Your task to perform on an android device: toggle pop-ups in chrome Image 0: 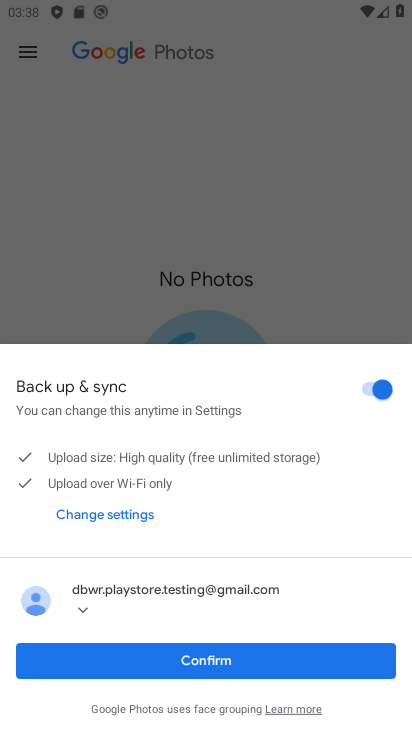
Step 0: press home button
Your task to perform on an android device: toggle pop-ups in chrome Image 1: 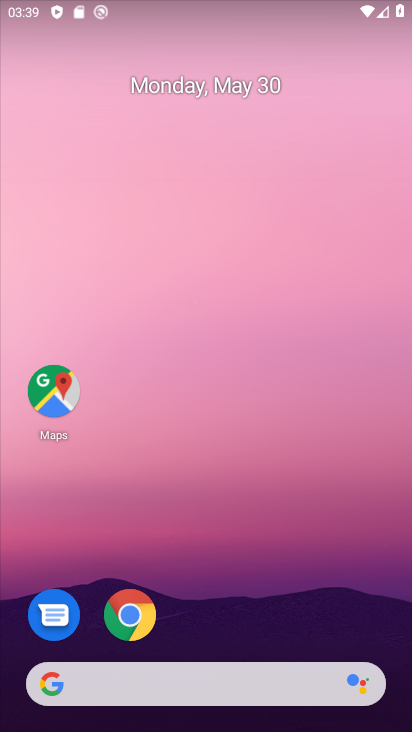
Step 1: click (129, 613)
Your task to perform on an android device: toggle pop-ups in chrome Image 2: 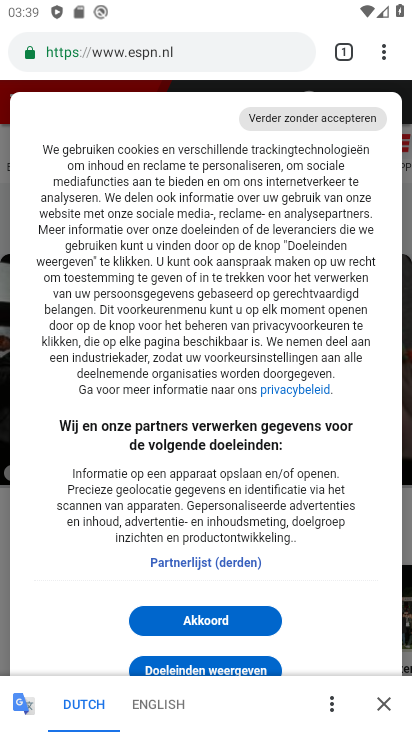
Step 2: click (385, 52)
Your task to perform on an android device: toggle pop-ups in chrome Image 3: 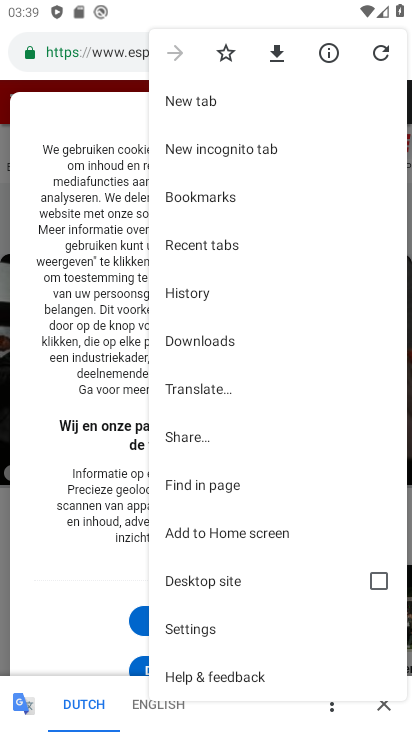
Step 3: drag from (206, 603) to (277, 505)
Your task to perform on an android device: toggle pop-ups in chrome Image 4: 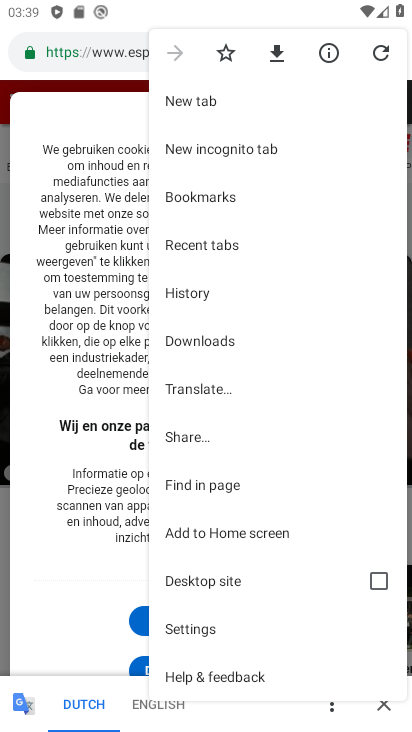
Step 4: click (203, 622)
Your task to perform on an android device: toggle pop-ups in chrome Image 5: 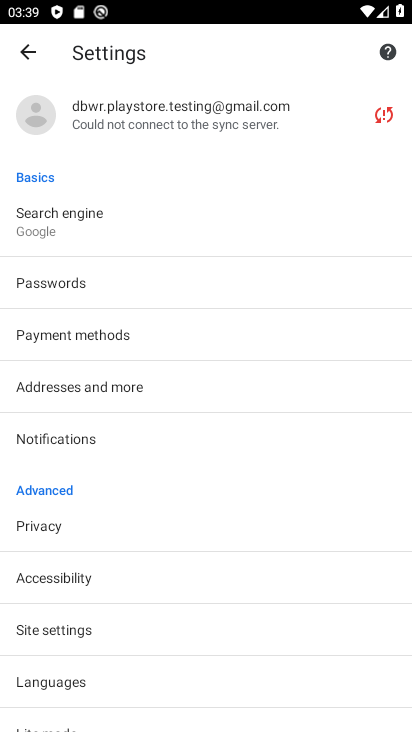
Step 5: drag from (117, 575) to (185, 482)
Your task to perform on an android device: toggle pop-ups in chrome Image 6: 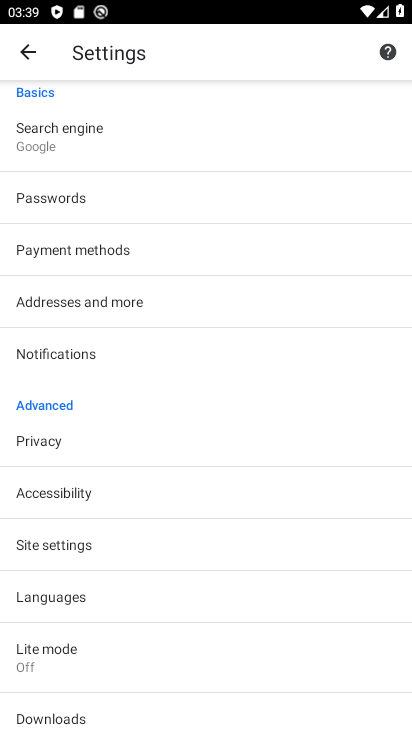
Step 6: click (80, 545)
Your task to perform on an android device: toggle pop-ups in chrome Image 7: 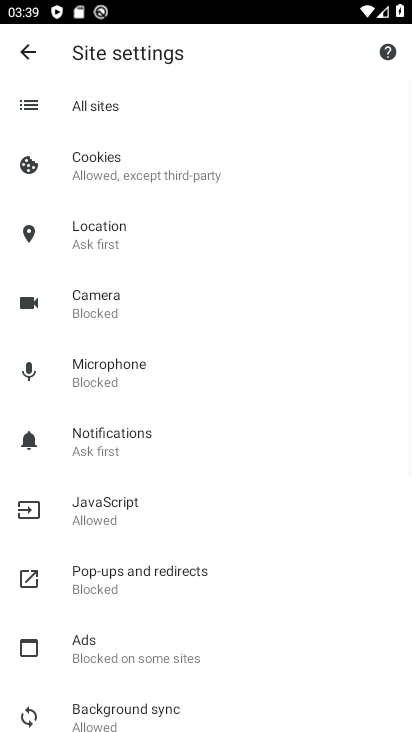
Step 7: drag from (130, 631) to (169, 524)
Your task to perform on an android device: toggle pop-ups in chrome Image 8: 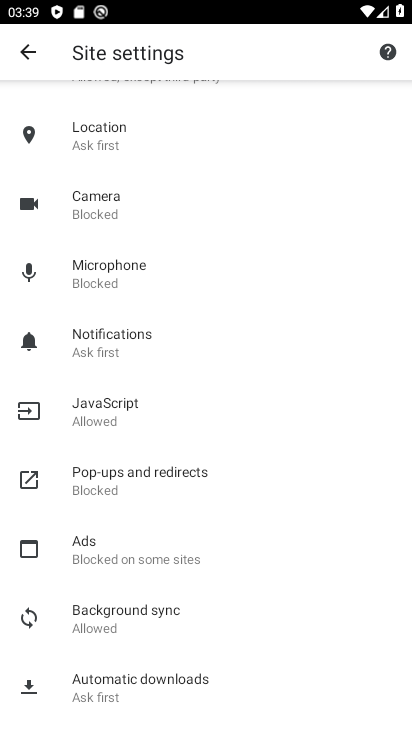
Step 8: click (167, 474)
Your task to perform on an android device: toggle pop-ups in chrome Image 9: 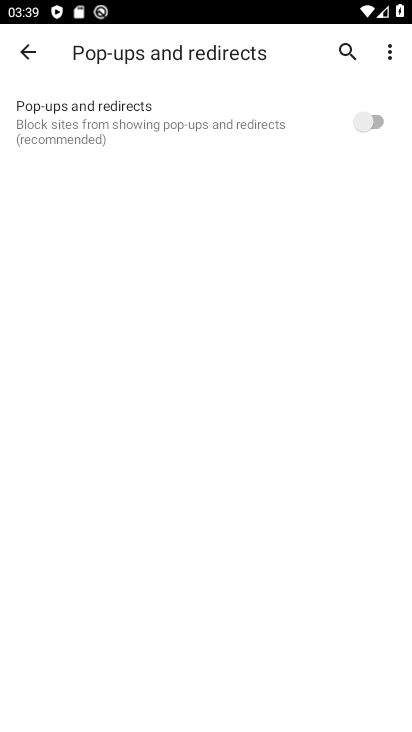
Step 9: click (378, 109)
Your task to perform on an android device: toggle pop-ups in chrome Image 10: 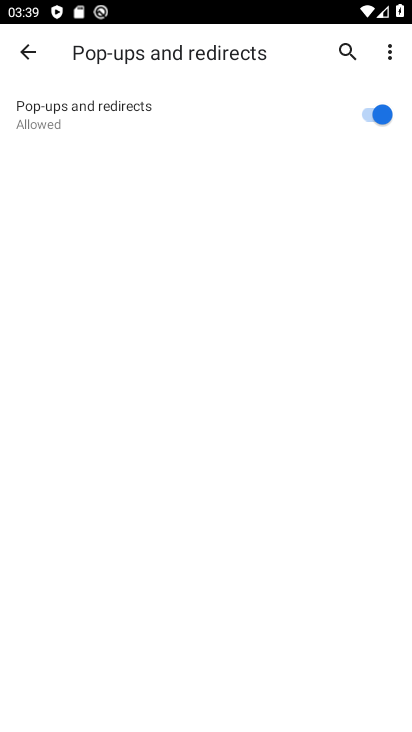
Step 10: task complete